Your task to perform on an android device: Open maps Image 0: 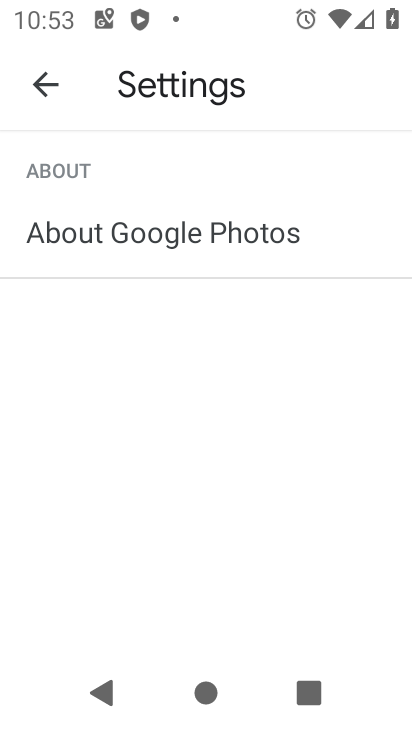
Step 0: press home button
Your task to perform on an android device: Open maps Image 1: 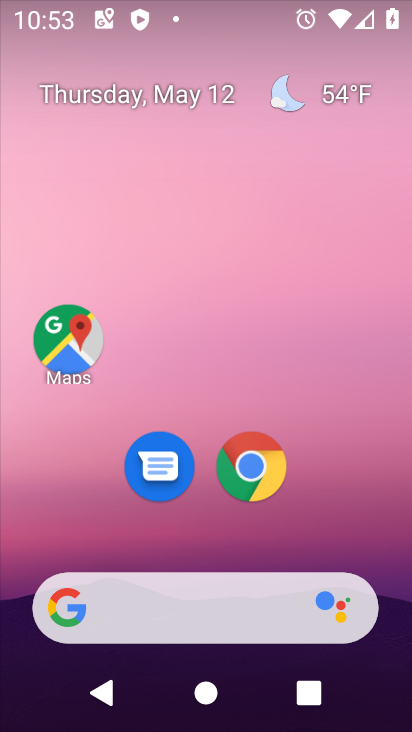
Step 1: drag from (369, 526) to (338, 211)
Your task to perform on an android device: Open maps Image 2: 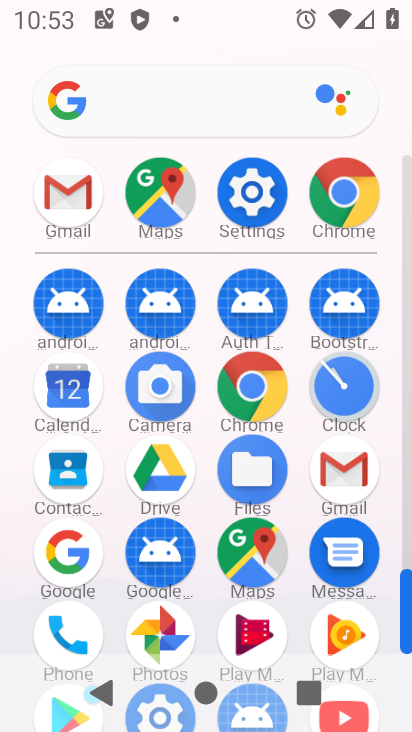
Step 2: click (251, 569)
Your task to perform on an android device: Open maps Image 3: 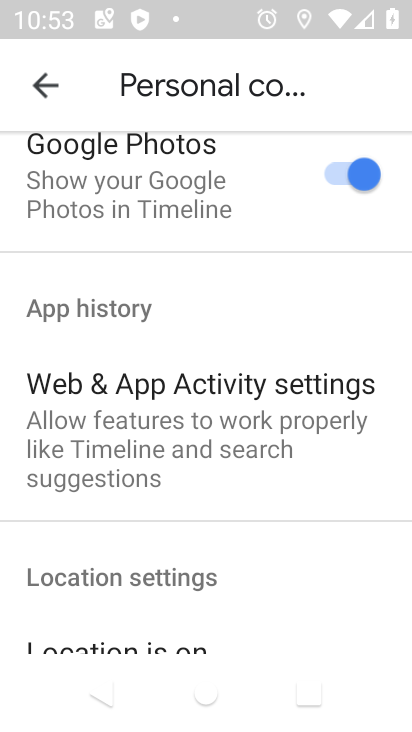
Step 3: click (25, 94)
Your task to perform on an android device: Open maps Image 4: 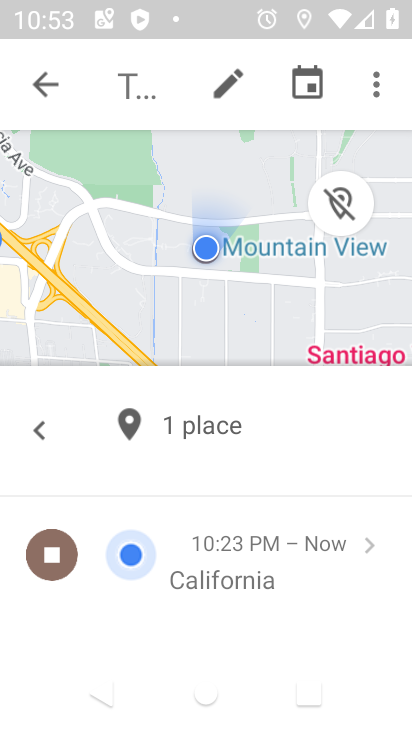
Step 4: click (25, 94)
Your task to perform on an android device: Open maps Image 5: 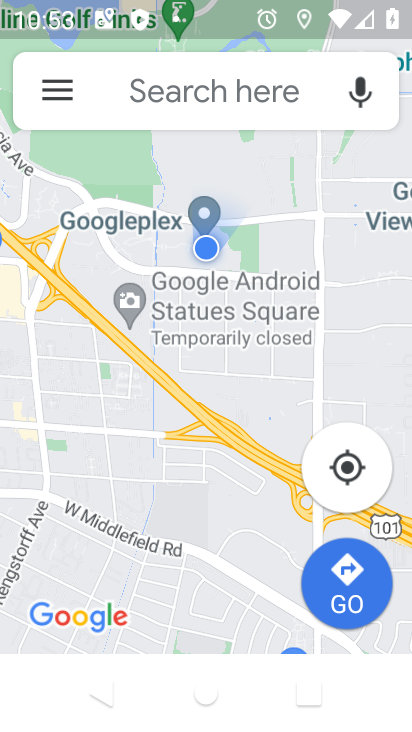
Step 5: task complete